Your task to perform on an android device: Open my contact list Image 0: 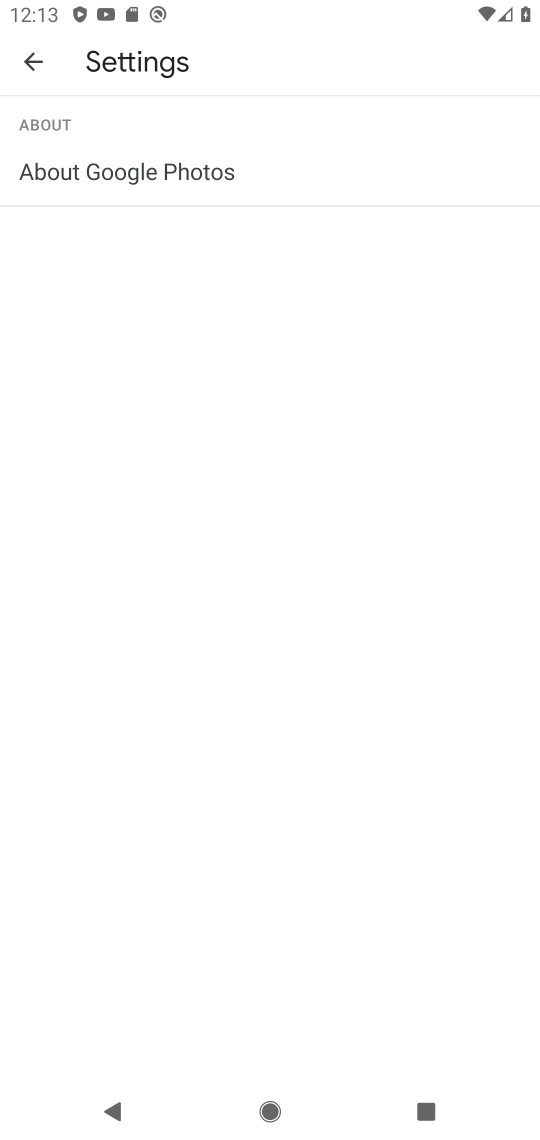
Step 0: press home button
Your task to perform on an android device: Open my contact list Image 1: 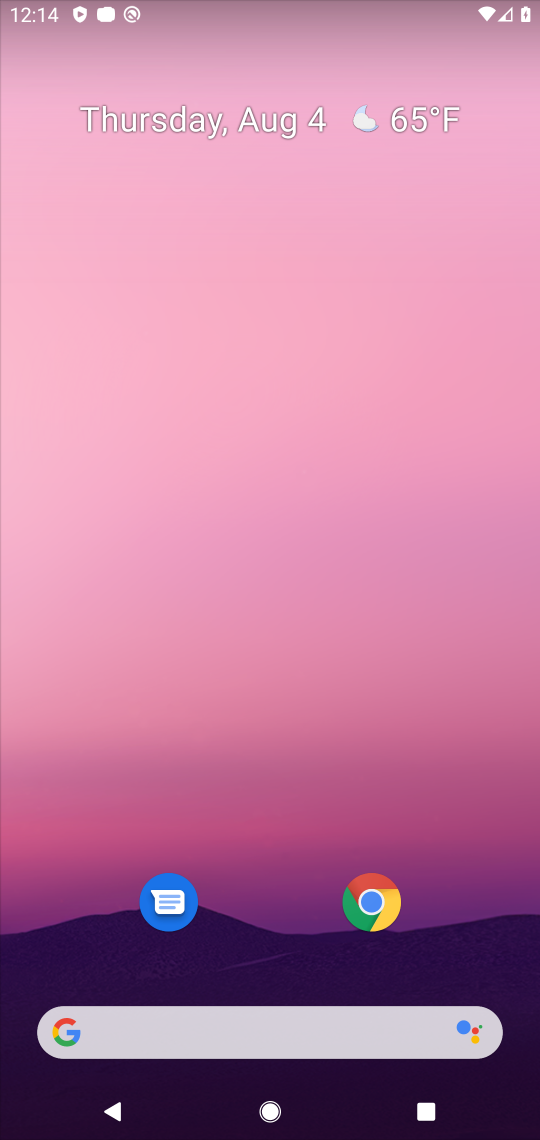
Step 1: drag from (480, 961) to (436, 257)
Your task to perform on an android device: Open my contact list Image 2: 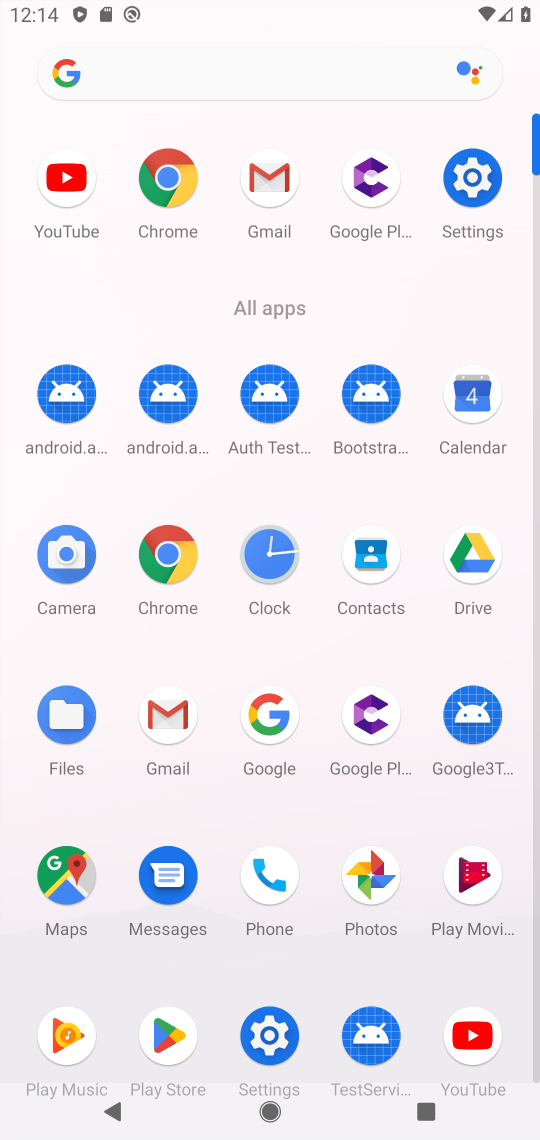
Step 2: click (366, 561)
Your task to perform on an android device: Open my contact list Image 3: 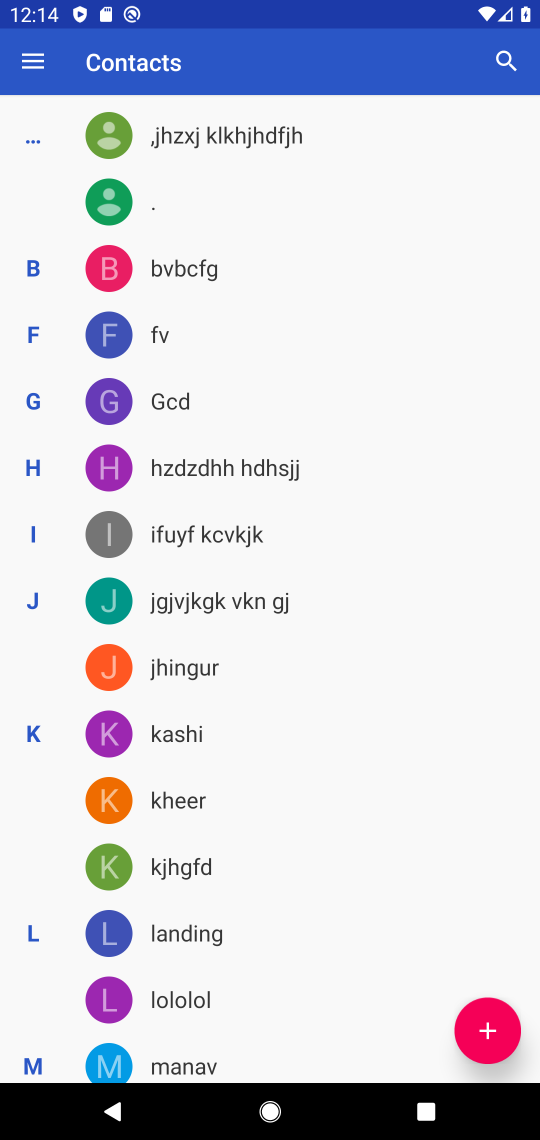
Step 3: task complete